Your task to perform on an android device: check storage Image 0: 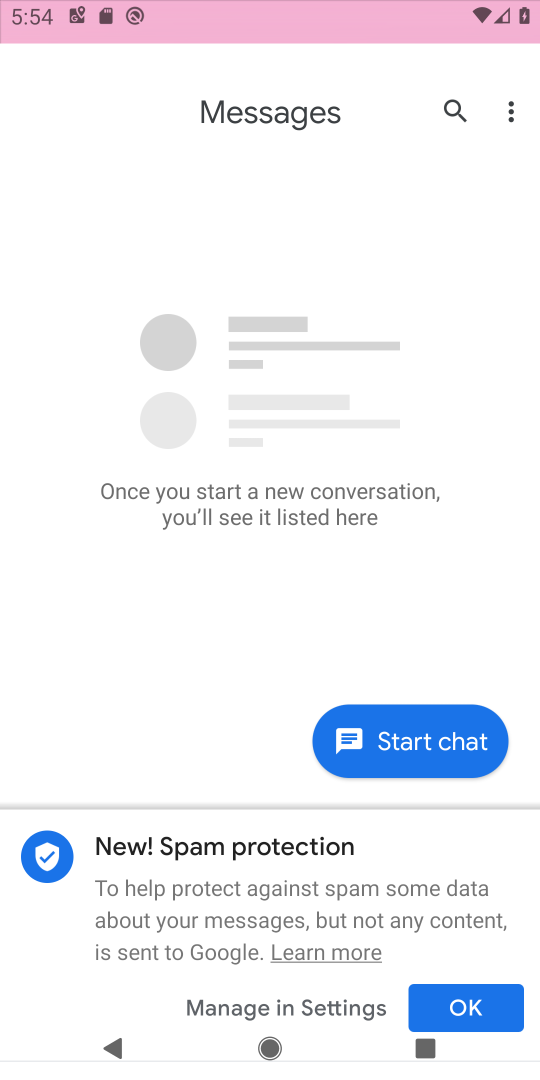
Step 0: press home button
Your task to perform on an android device: check storage Image 1: 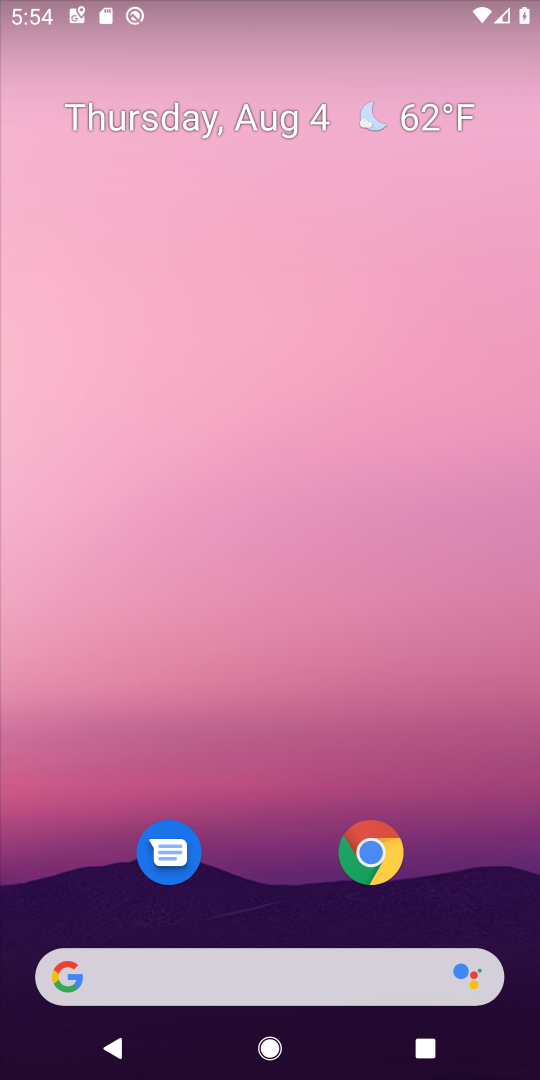
Step 1: click (271, 912)
Your task to perform on an android device: check storage Image 2: 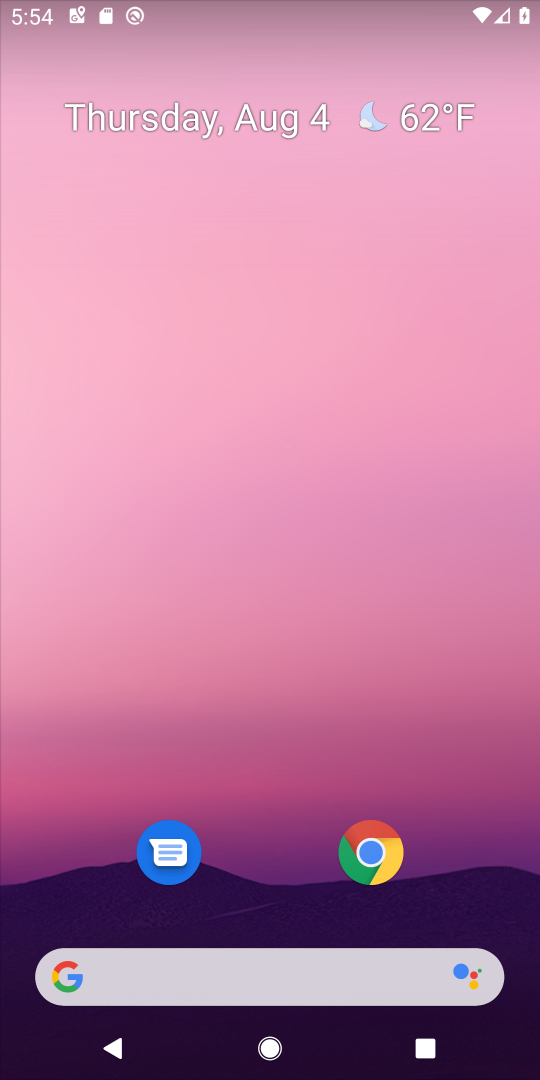
Step 2: click (266, 411)
Your task to perform on an android device: check storage Image 3: 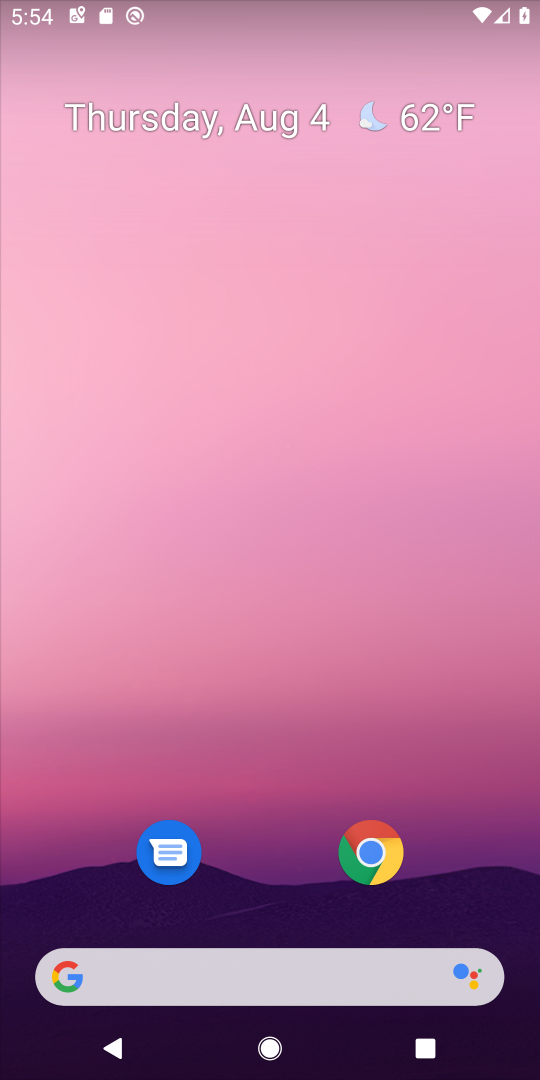
Step 3: drag from (261, 919) to (249, 450)
Your task to perform on an android device: check storage Image 4: 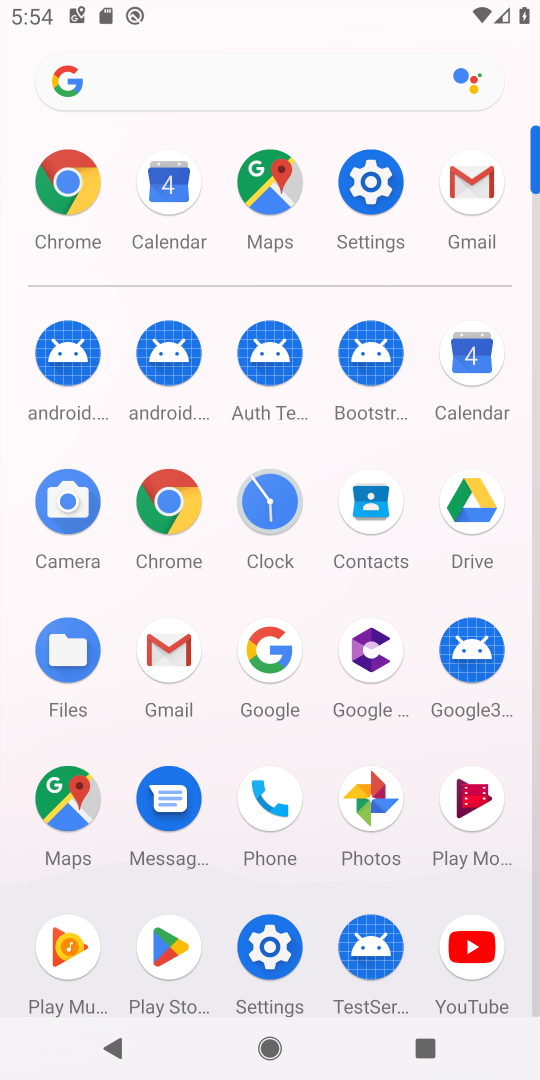
Step 4: click (366, 182)
Your task to perform on an android device: check storage Image 5: 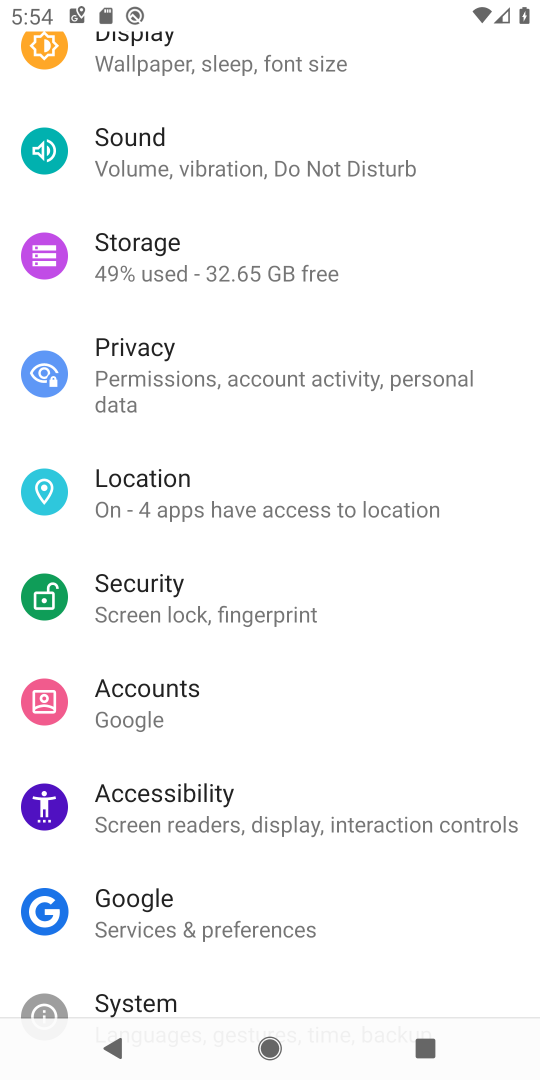
Step 5: click (128, 242)
Your task to perform on an android device: check storage Image 6: 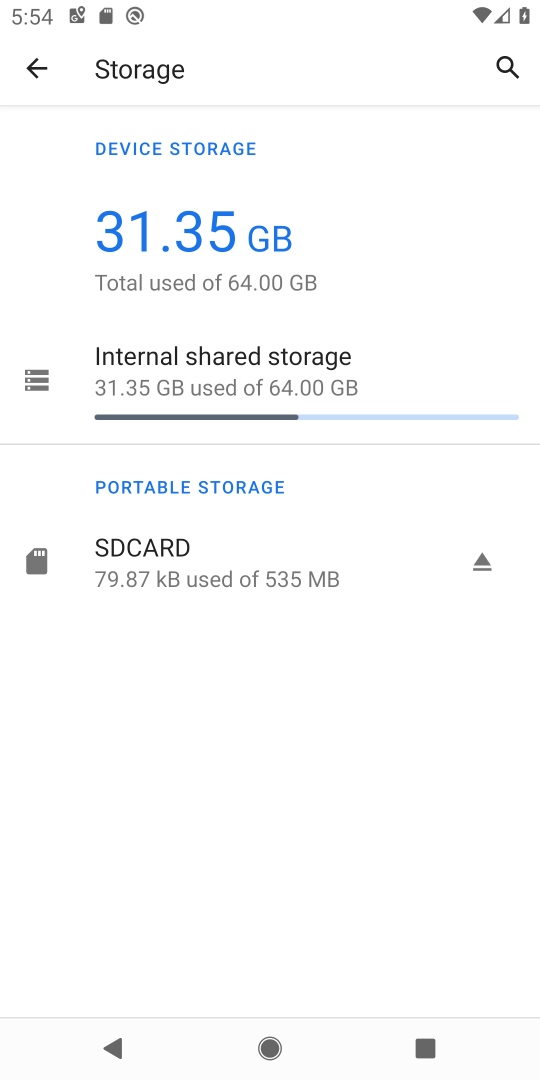
Step 6: task complete